Your task to perform on an android device: Open Android settings Image 0: 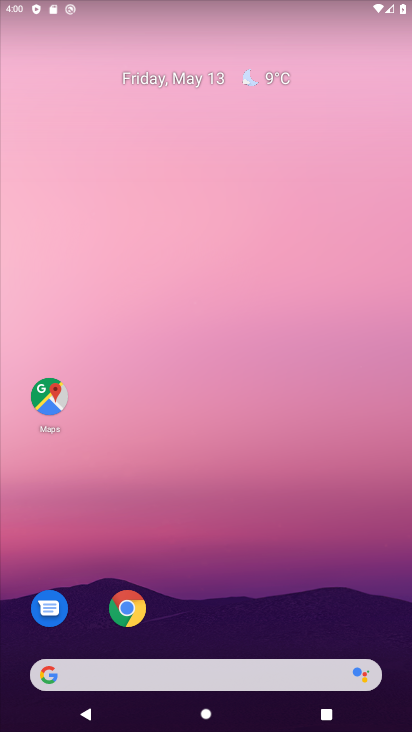
Step 0: drag from (311, 505) to (221, 49)
Your task to perform on an android device: Open Android settings Image 1: 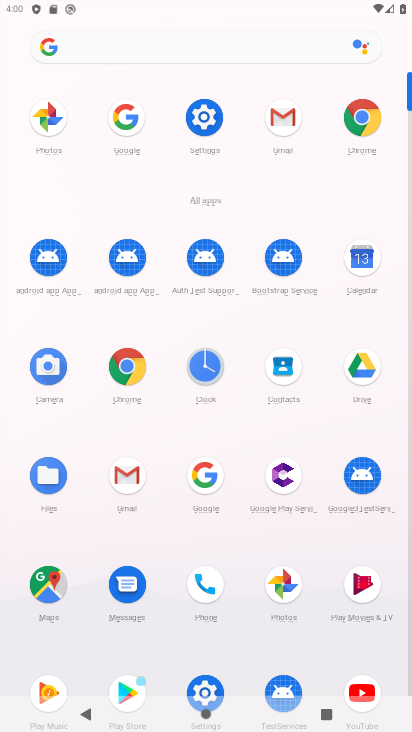
Step 1: click (212, 130)
Your task to perform on an android device: Open Android settings Image 2: 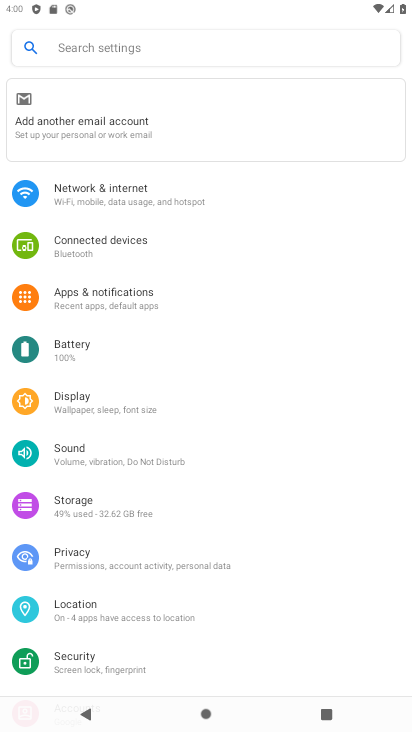
Step 2: drag from (169, 643) to (147, 197)
Your task to perform on an android device: Open Android settings Image 3: 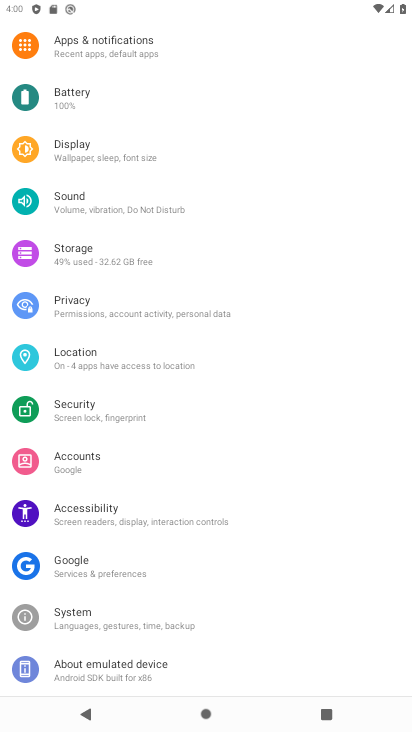
Step 3: click (165, 674)
Your task to perform on an android device: Open Android settings Image 4: 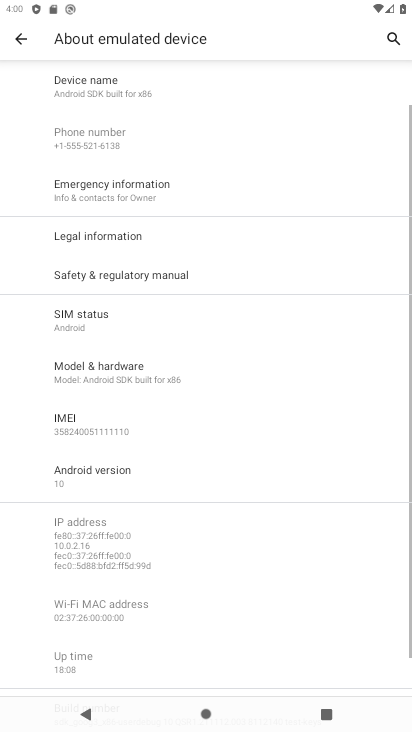
Step 4: click (97, 467)
Your task to perform on an android device: Open Android settings Image 5: 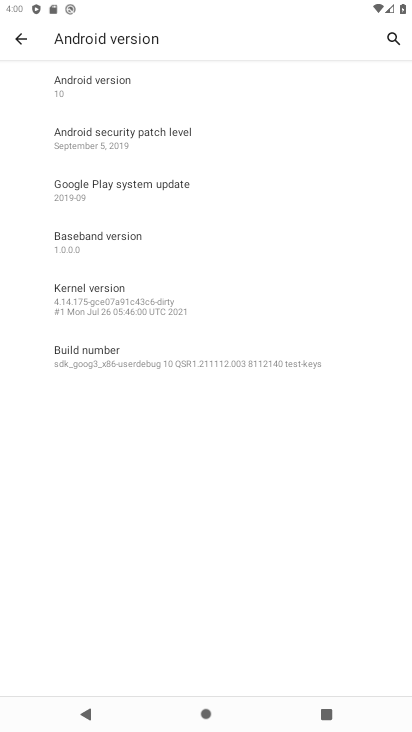
Step 5: task complete